Your task to perform on an android device: add a contact Image 0: 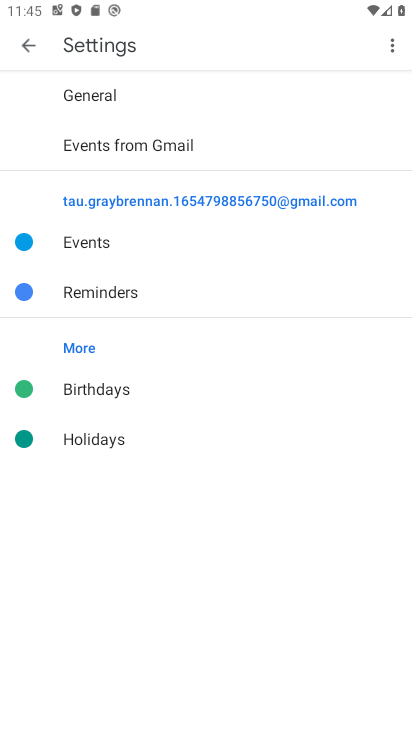
Step 0: press home button
Your task to perform on an android device: add a contact Image 1: 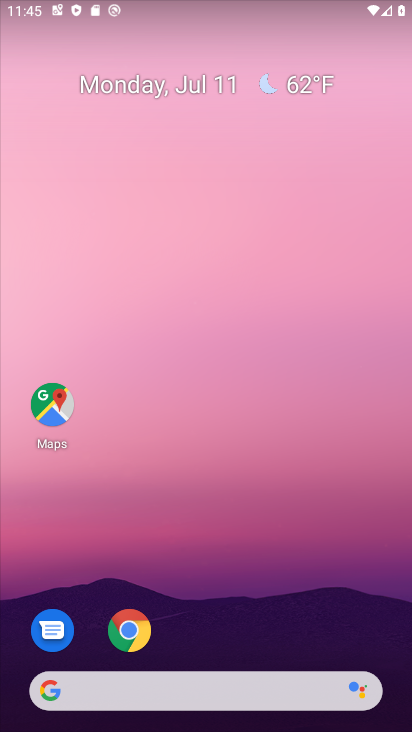
Step 1: drag from (137, 637) to (184, 99)
Your task to perform on an android device: add a contact Image 2: 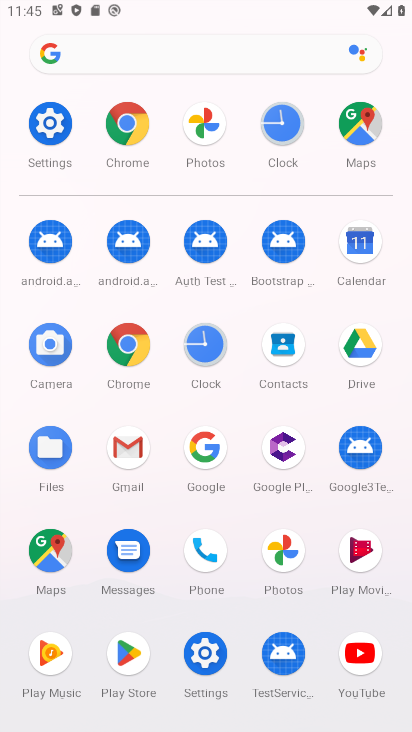
Step 2: click (280, 342)
Your task to perform on an android device: add a contact Image 3: 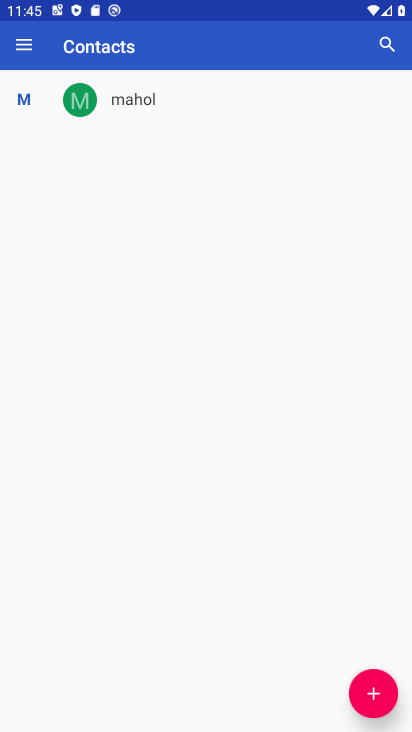
Step 3: click (375, 706)
Your task to perform on an android device: add a contact Image 4: 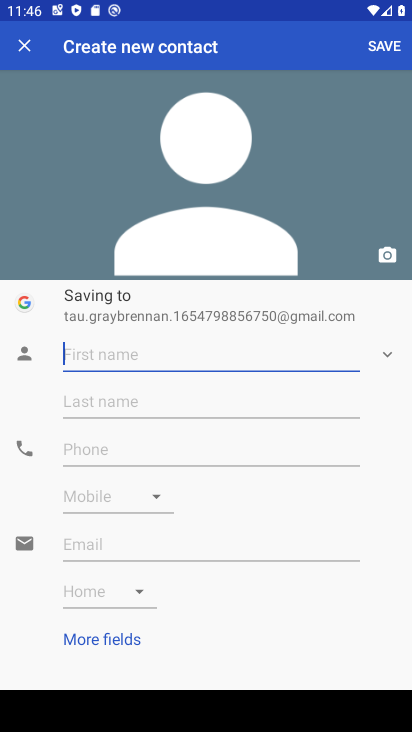
Step 4: type "sofia"
Your task to perform on an android device: add a contact Image 5: 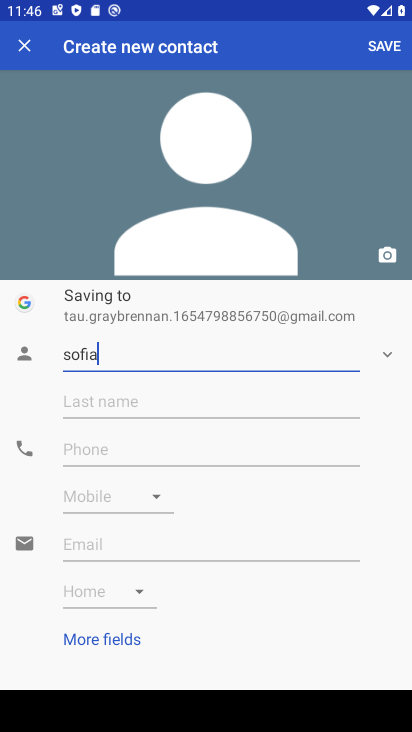
Step 5: click (106, 431)
Your task to perform on an android device: add a contact Image 6: 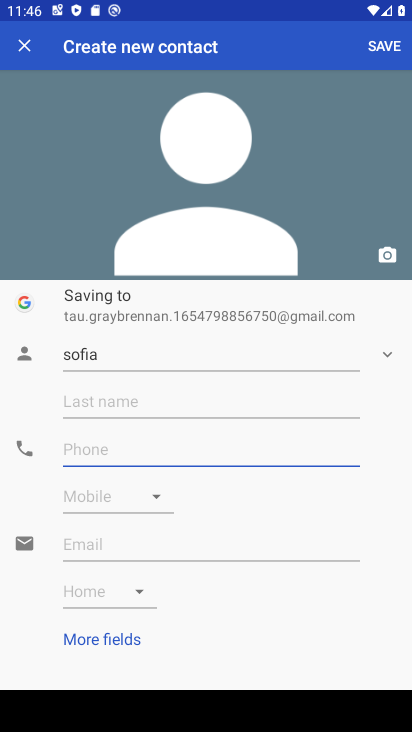
Step 6: type "9897654567"
Your task to perform on an android device: add a contact Image 7: 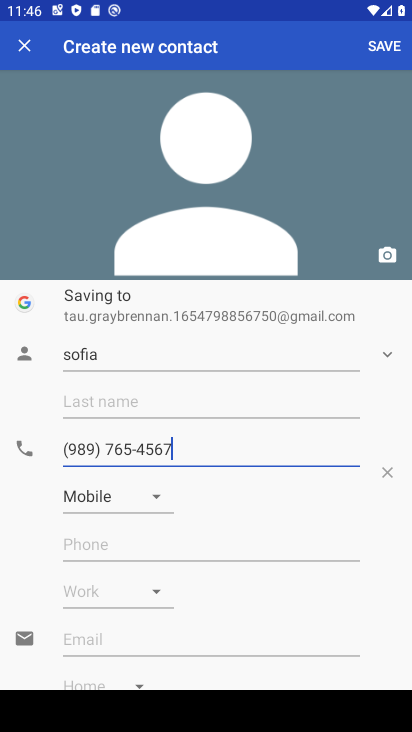
Step 7: click (386, 50)
Your task to perform on an android device: add a contact Image 8: 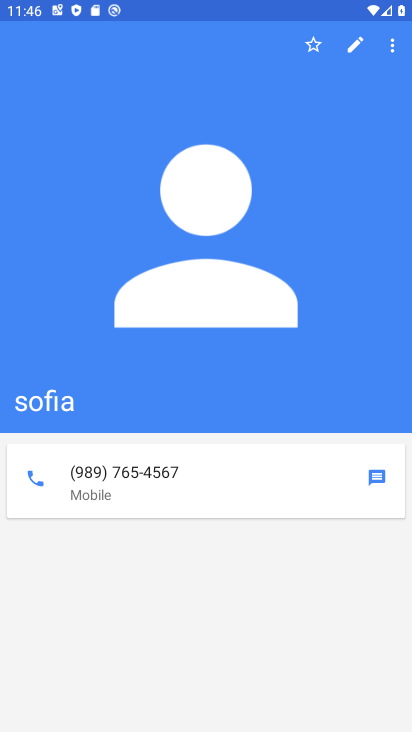
Step 8: task complete